Your task to perform on an android device: Is it going to rain this weekend? Image 0: 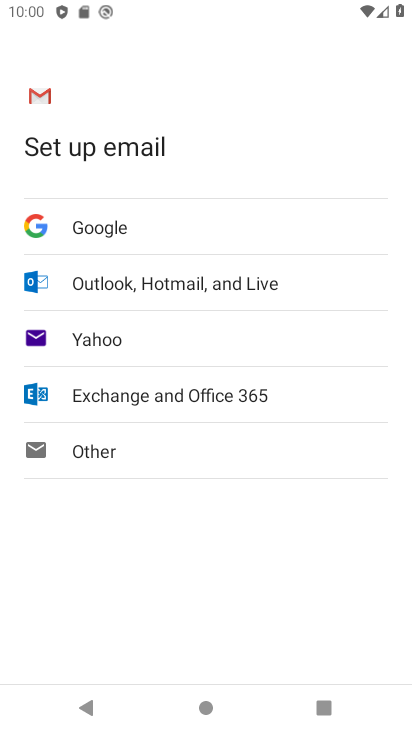
Step 0: press home button
Your task to perform on an android device: Is it going to rain this weekend? Image 1: 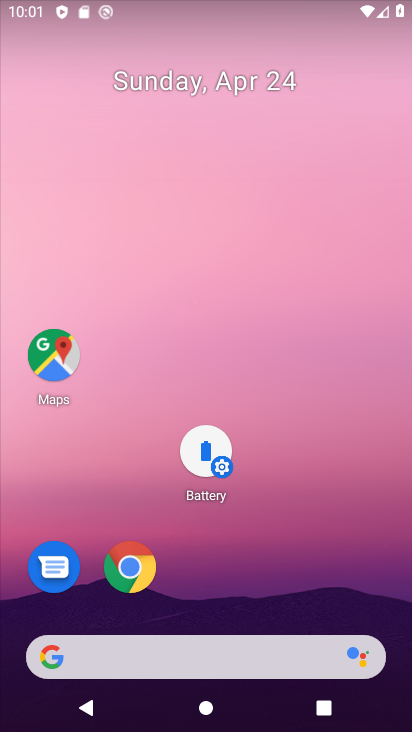
Step 1: click (237, 652)
Your task to perform on an android device: Is it going to rain this weekend? Image 2: 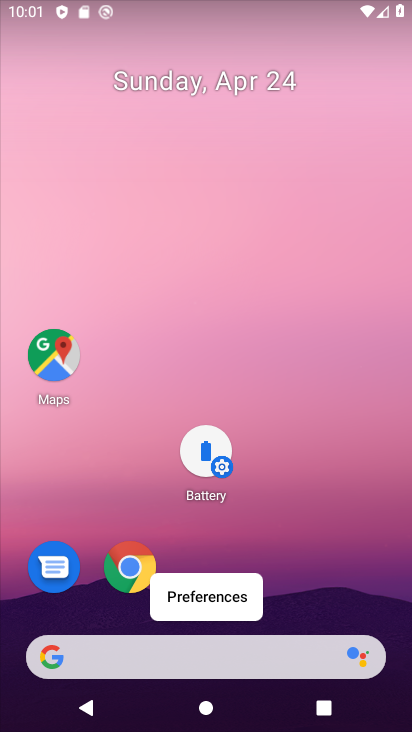
Step 2: click (106, 646)
Your task to perform on an android device: Is it going to rain this weekend? Image 3: 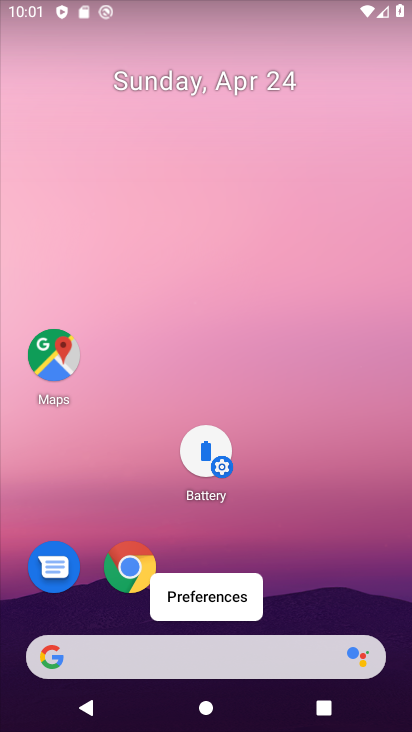
Step 3: click (170, 662)
Your task to perform on an android device: Is it going to rain this weekend? Image 4: 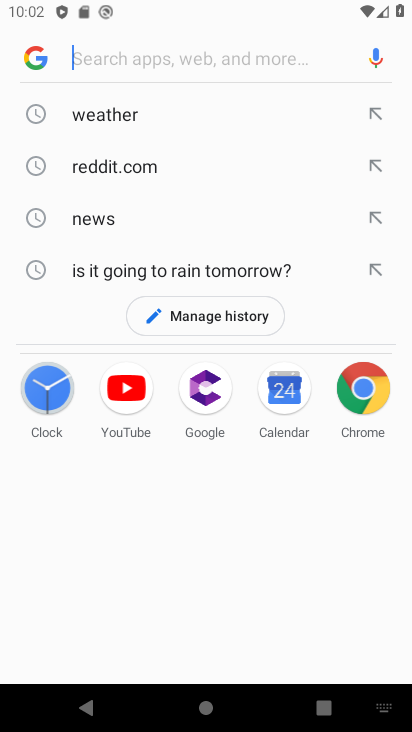
Step 4: click (120, 125)
Your task to perform on an android device: Is it going to rain this weekend? Image 5: 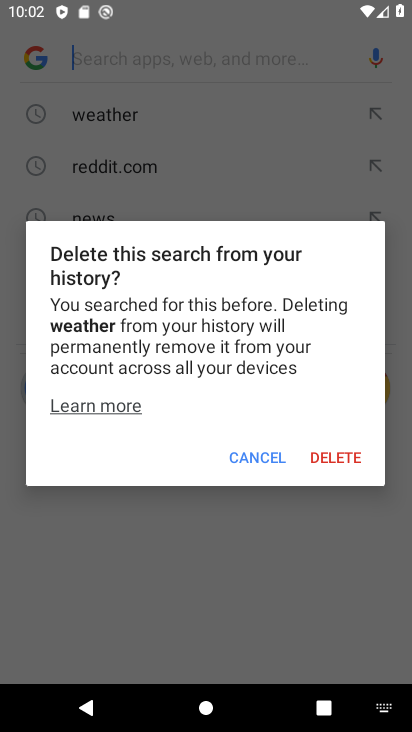
Step 5: click (241, 451)
Your task to perform on an android device: Is it going to rain this weekend? Image 6: 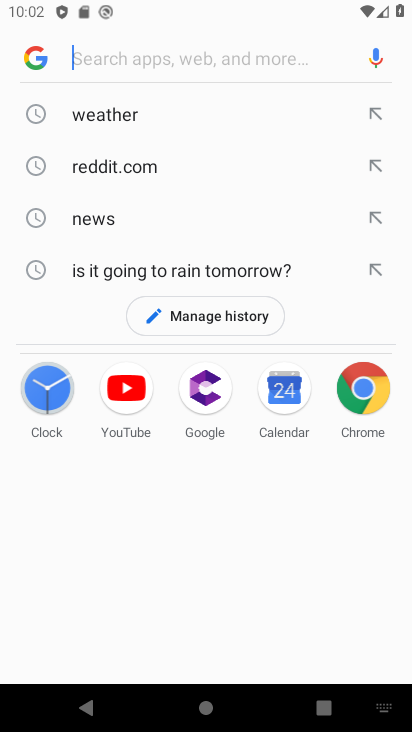
Step 6: click (89, 109)
Your task to perform on an android device: Is it going to rain this weekend? Image 7: 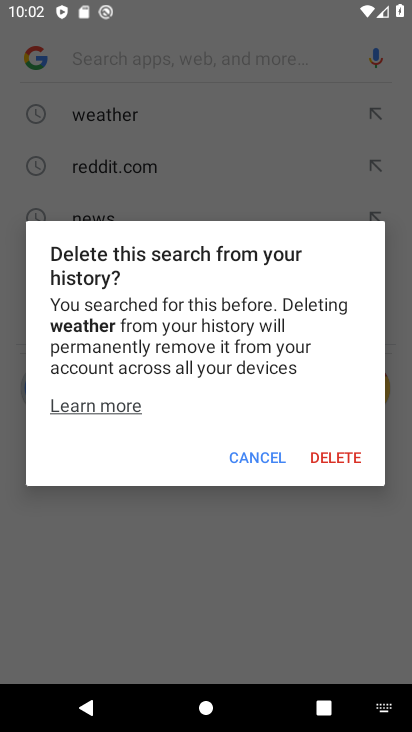
Step 7: click (252, 457)
Your task to perform on an android device: Is it going to rain this weekend? Image 8: 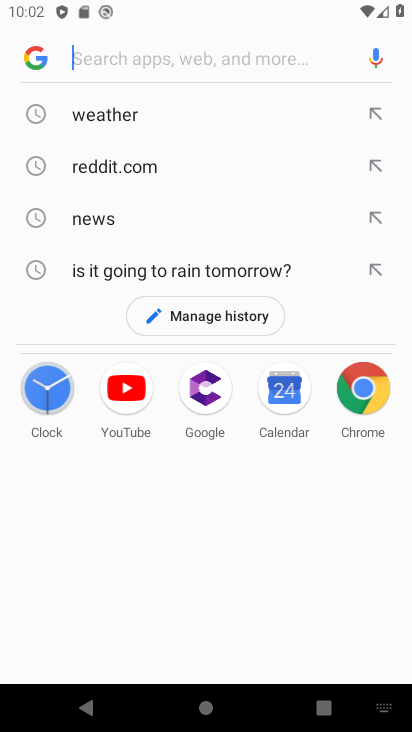
Step 8: click (378, 112)
Your task to perform on an android device: Is it going to rain this weekend? Image 9: 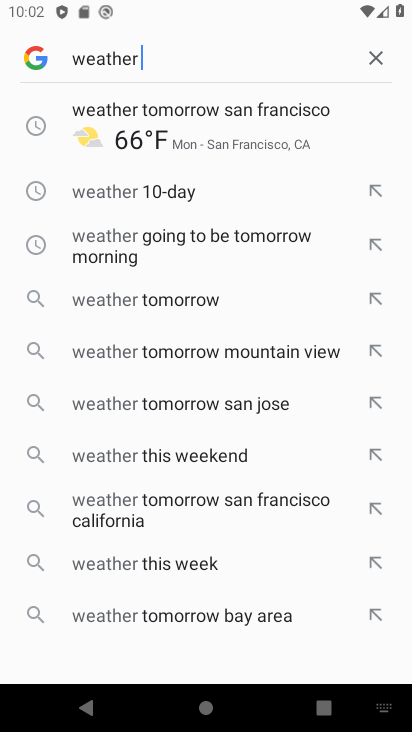
Step 9: click (228, 112)
Your task to perform on an android device: Is it going to rain this weekend? Image 10: 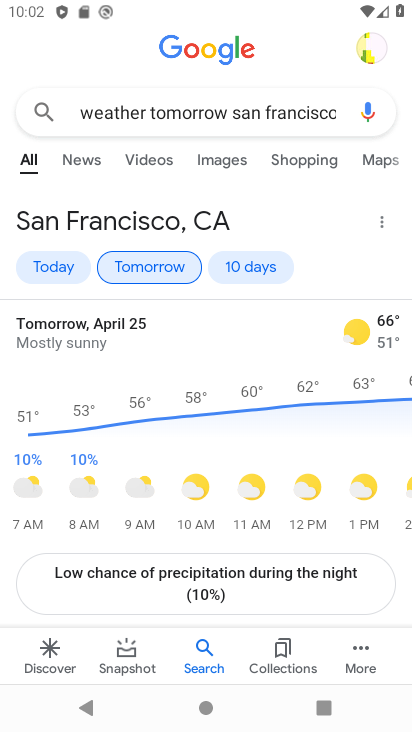
Step 10: task complete